Your task to perform on an android device: open chrome privacy settings Image 0: 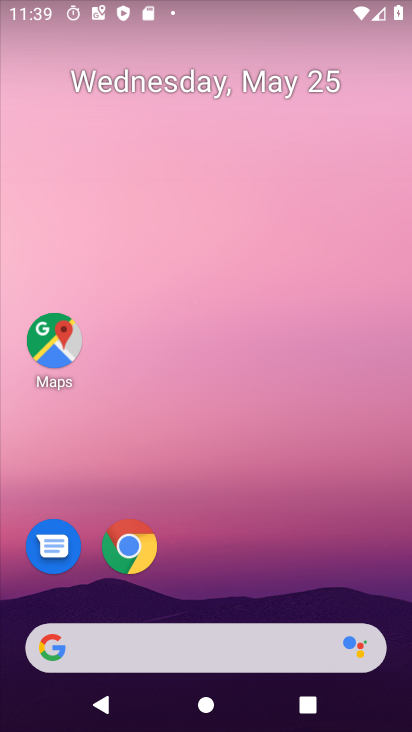
Step 0: click (136, 544)
Your task to perform on an android device: open chrome privacy settings Image 1: 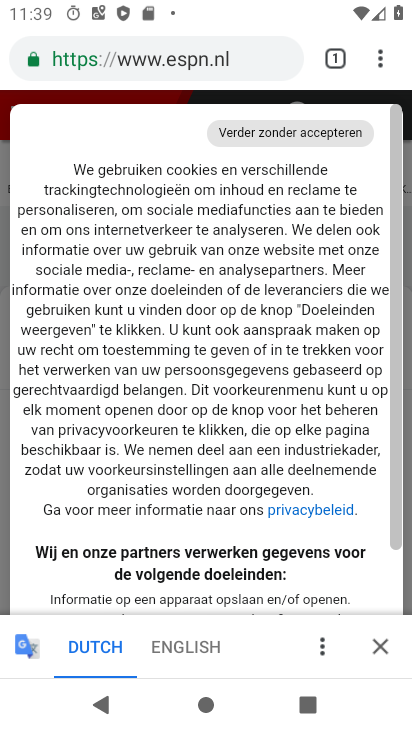
Step 1: click (374, 65)
Your task to perform on an android device: open chrome privacy settings Image 2: 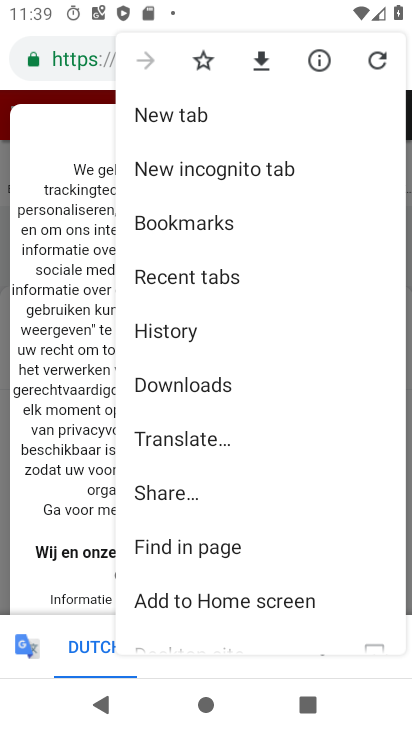
Step 2: drag from (195, 582) to (209, 124)
Your task to perform on an android device: open chrome privacy settings Image 3: 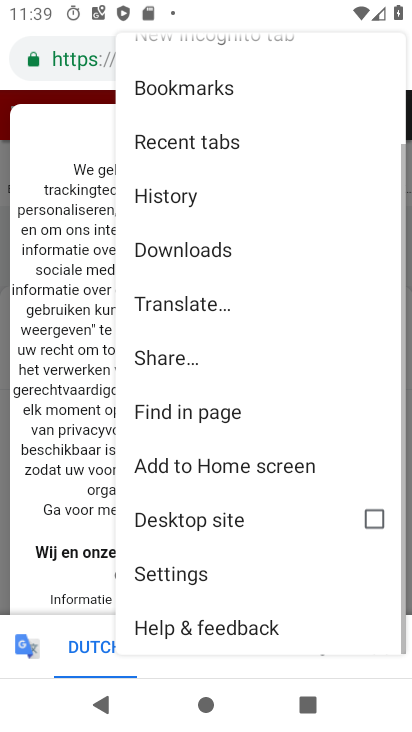
Step 3: click (196, 570)
Your task to perform on an android device: open chrome privacy settings Image 4: 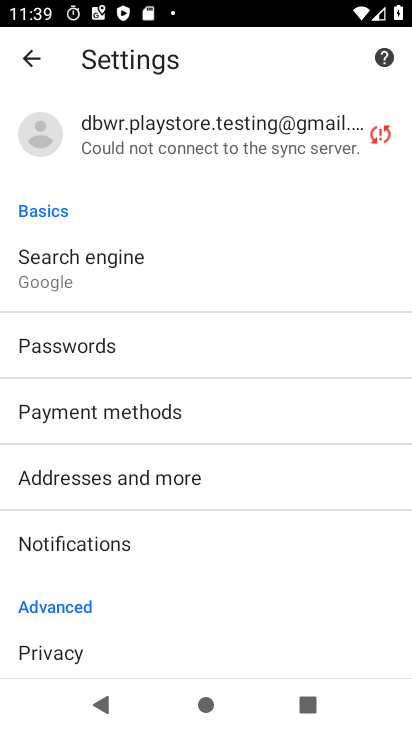
Step 4: click (140, 654)
Your task to perform on an android device: open chrome privacy settings Image 5: 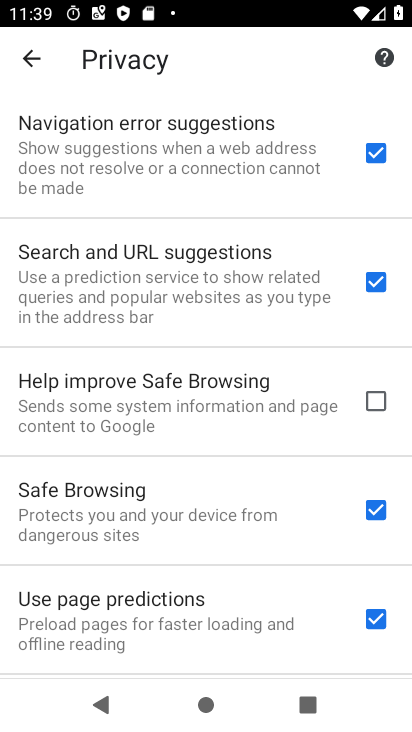
Step 5: task complete